Your task to perform on an android device: Turn on the flashlight Image 0: 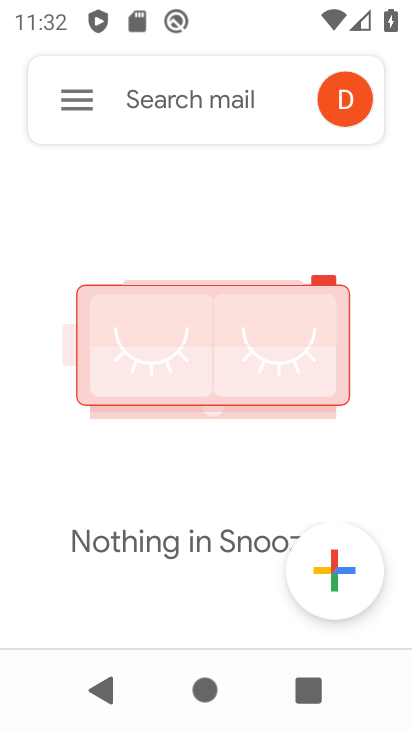
Step 0: press home button
Your task to perform on an android device: Turn on the flashlight Image 1: 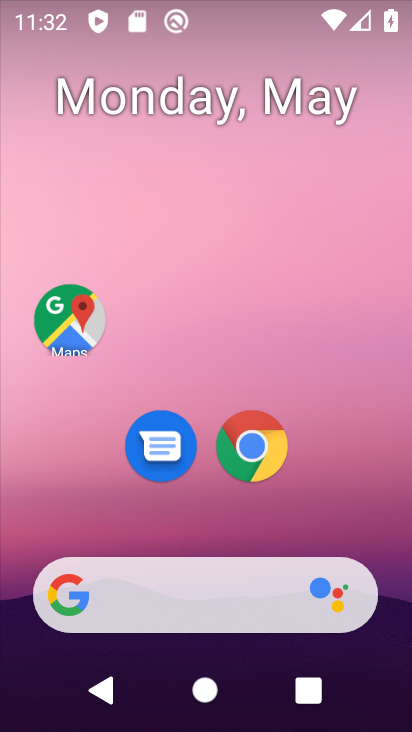
Step 1: drag from (336, 511) to (227, 27)
Your task to perform on an android device: Turn on the flashlight Image 2: 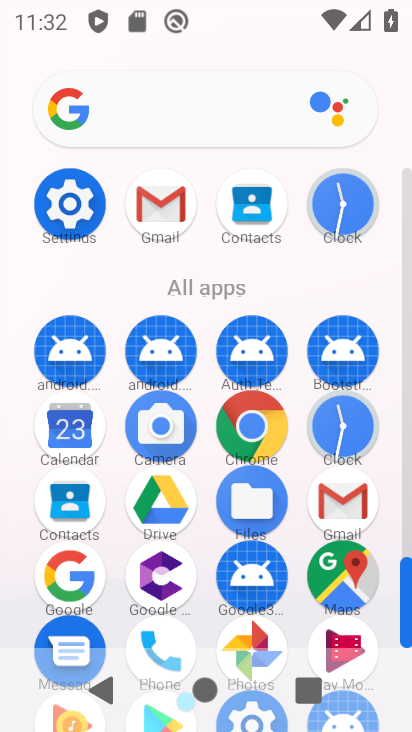
Step 2: click (52, 200)
Your task to perform on an android device: Turn on the flashlight Image 3: 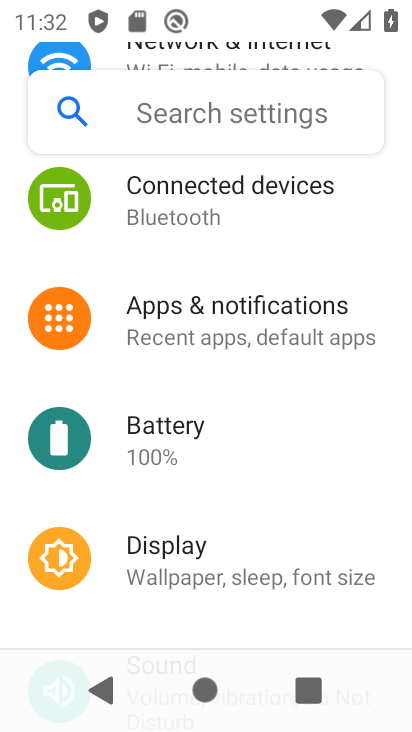
Step 3: drag from (233, 262) to (322, 650)
Your task to perform on an android device: Turn on the flashlight Image 4: 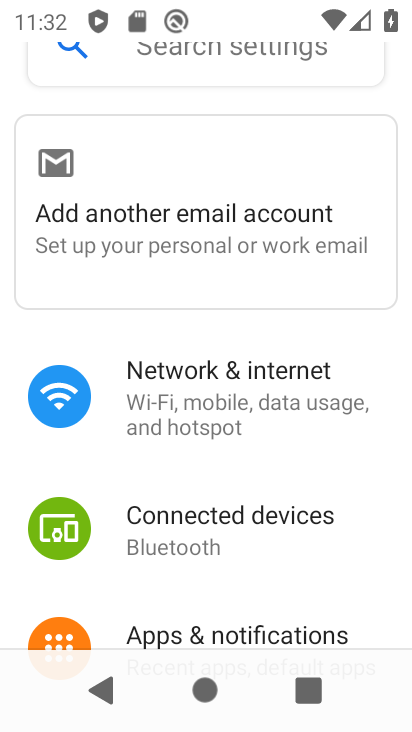
Step 4: drag from (266, 597) to (198, 198)
Your task to perform on an android device: Turn on the flashlight Image 5: 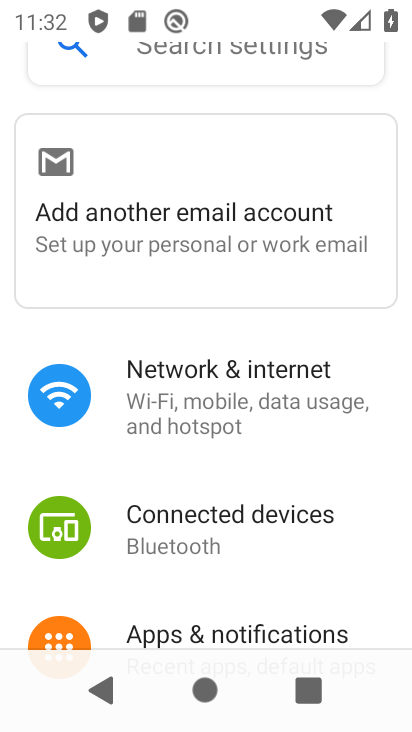
Step 5: drag from (271, 571) to (240, 315)
Your task to perform on an android device: Turn on the flashlight Image 6: 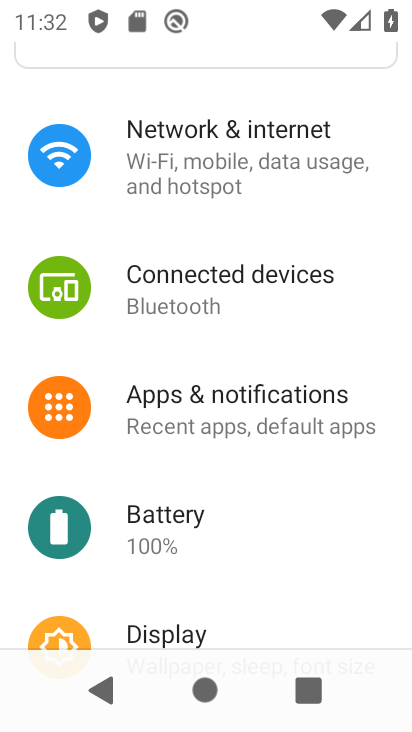
Step 6: click (210, 389)
Your task to perform on an android device: Turn on the flashlight Image 7: 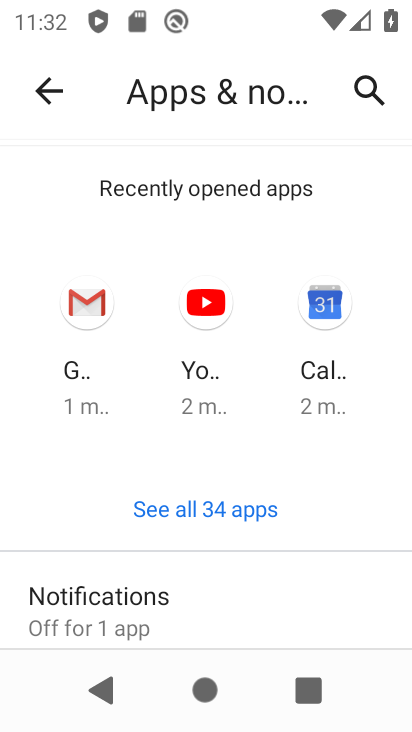
Step 7: task complete